Your task to perform on an android device: Open Android settings Image 0: 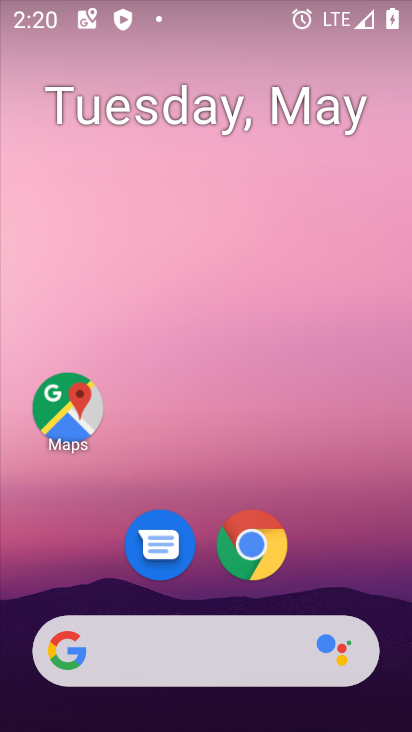
Step 0: drag from (346, 464) to (216, 3)
Your task to perform on an android device: Open Android settings Image 1: 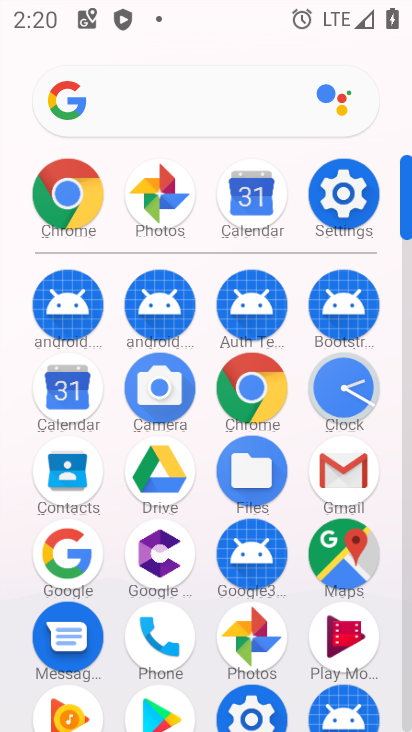
Step 1: drag from (1, 546) to (4, 210)
Your task to perform on an android device: Open Android settings Image 2: 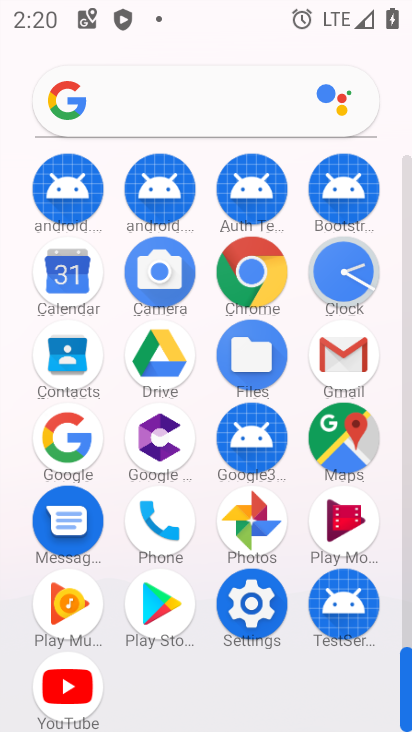
Step 2: click (248, 601)
Your task to perform on an android device: Open Android settings Image 3: 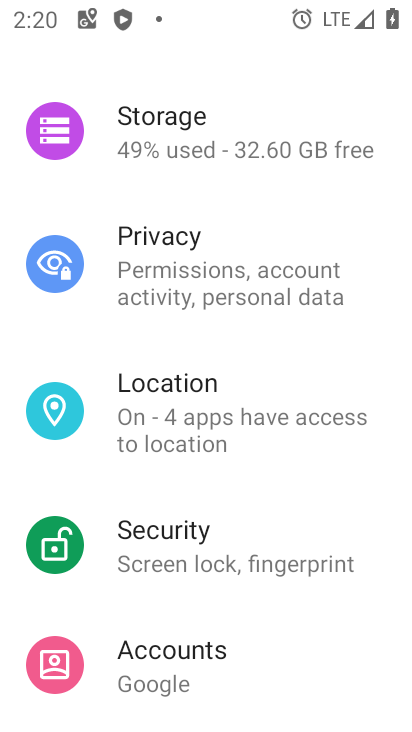
Step 3: task complete